Your task to perform on an android device: Go to Android settings Image 0: 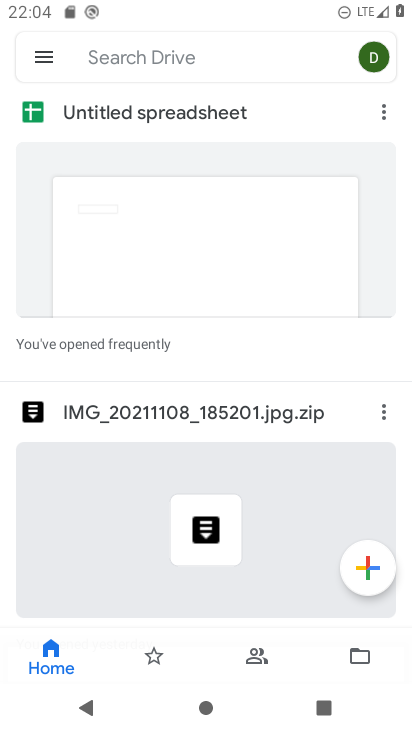
Step 0: press home button
Your task to perform on an android device: Go to Android settings Image 1: 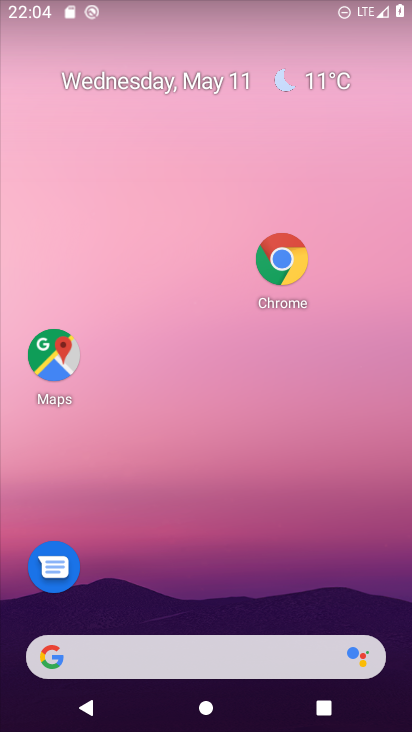
Step 1: drag from (167, 655) to (217, 223)
Your task to perform on an android device: Go to Android settings Image 2: 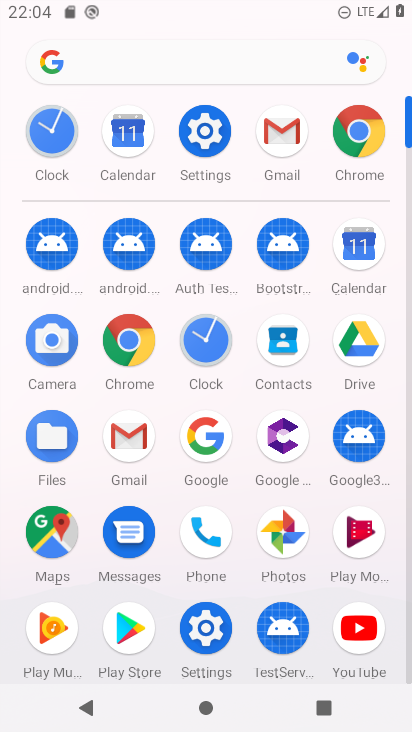
Step 2: click (198, 144)
Your task to perform on an android device: Go to Android settings Image 3: 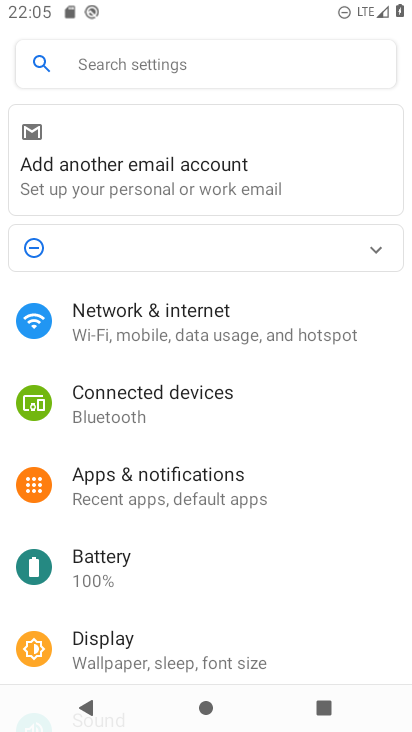
Step 3: task complete